Your task to perform on an android device: open sync settings in chrome Image 0: 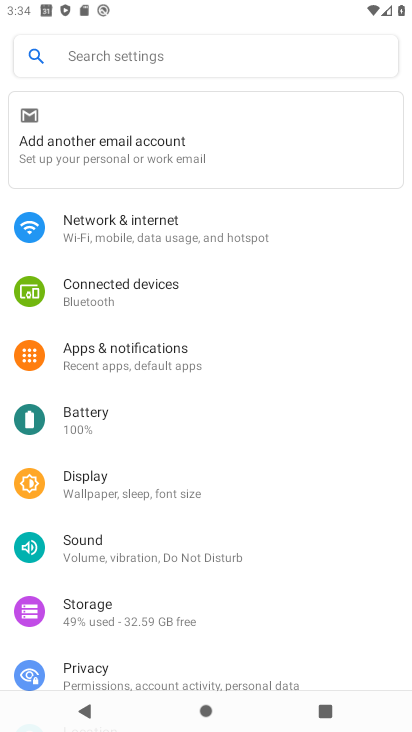
Step 0: press home button
Your task to perform on an android device: open sync settings in chrome Image 1: 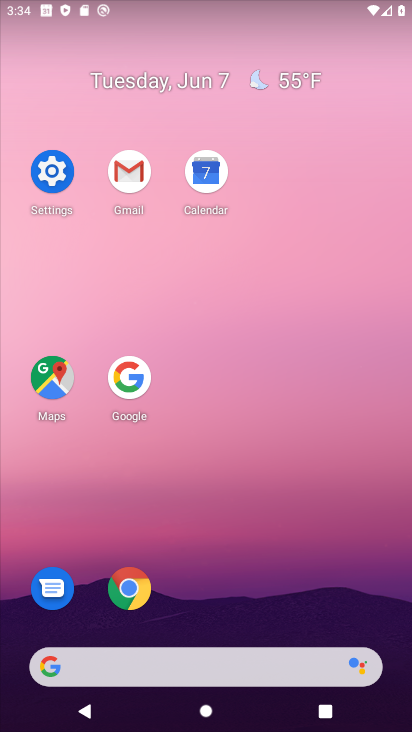
Step 1: click (130, 584)
Your task to perform on an android device: open sync settings in chrome Image 2: 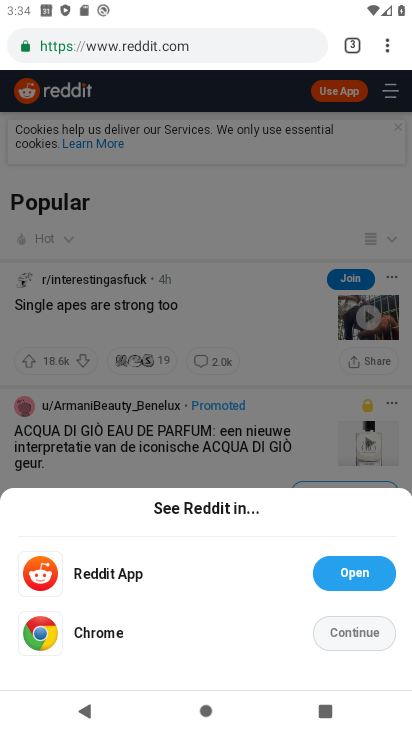
Step 2: click (391, 50)
Your task to perform on an android device: open sync settings in chrome Image 3: 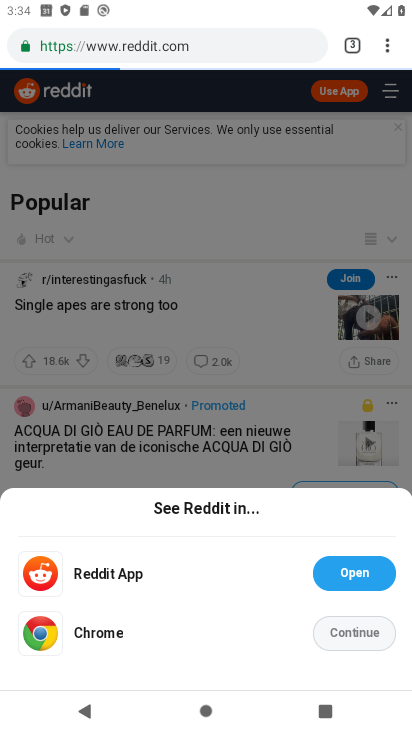
Step 3: click (379, 54)
Your task to perform on an android device: open sync settings in chrome Image 4: 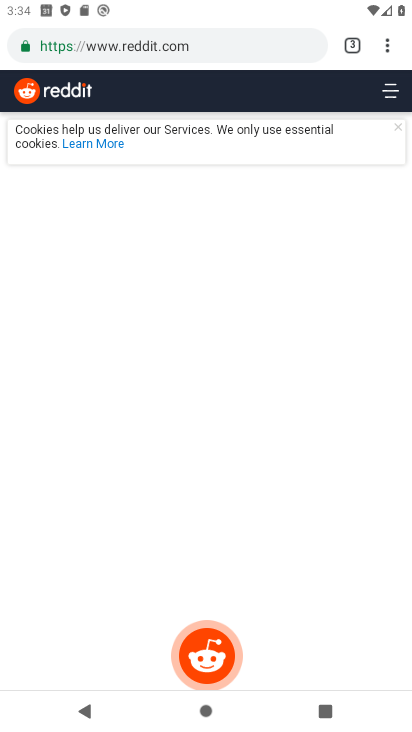
Step 4: click (396, 47)
Your task to perform on an android device: open sync settings in chrome Image 5: 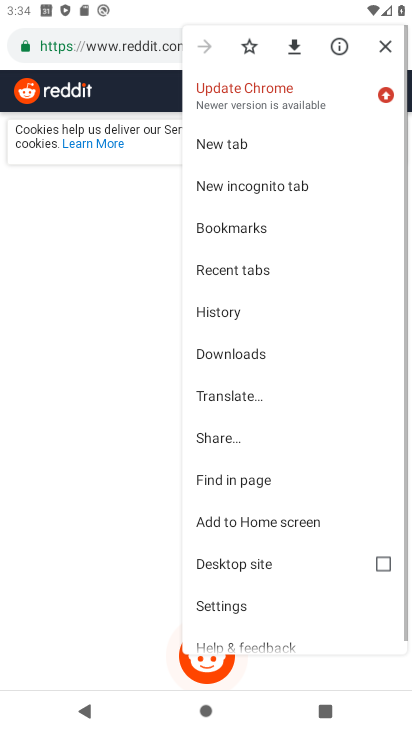
Step 5: drag from (264, 498) to (324, 244)
Your task to perform on an android device: open sync settings in chrome Image 6: 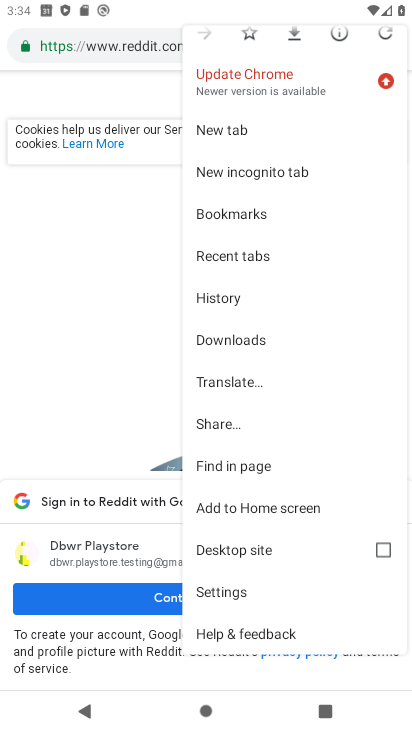
Step 6: click (263, 592)
Your task to perform on an android device: open sync settings in chrome Image 7: 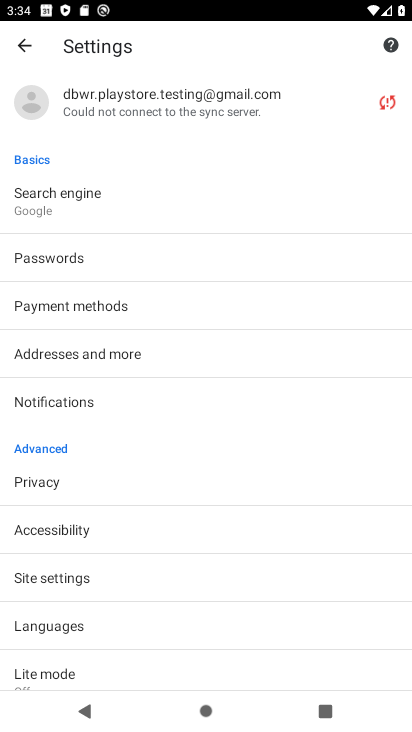
Step 7: click (165, 583)
Your task to perform on an android device: open sync settings in chrome Image 8: 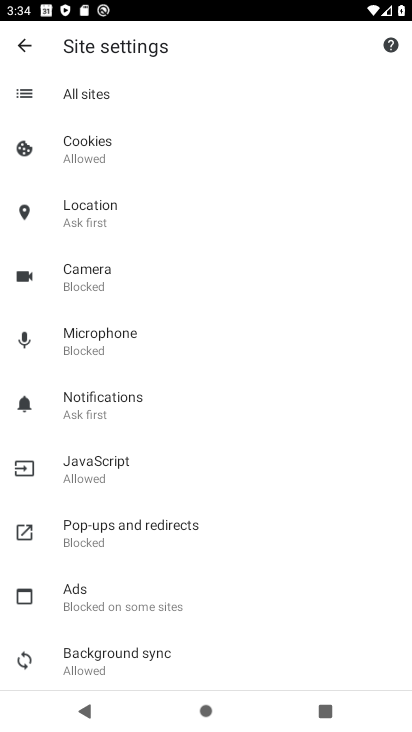
Step 8: click (170, 657)
Your task to perform on an android device: open sync settings in chrome Image 9: 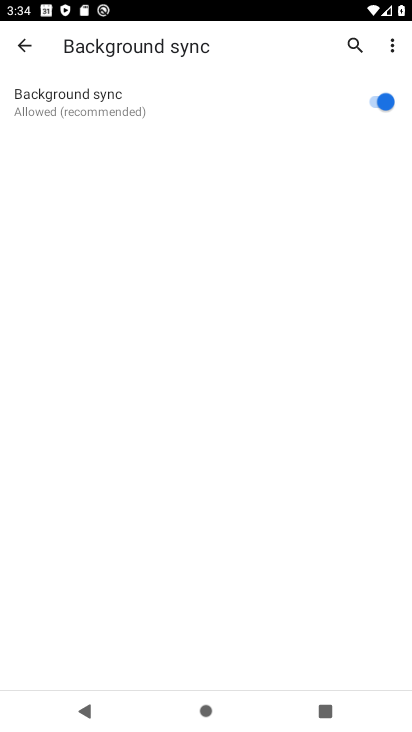
Step 9: task complete